Your task to perform on an android device: Open notification settings Image 0: 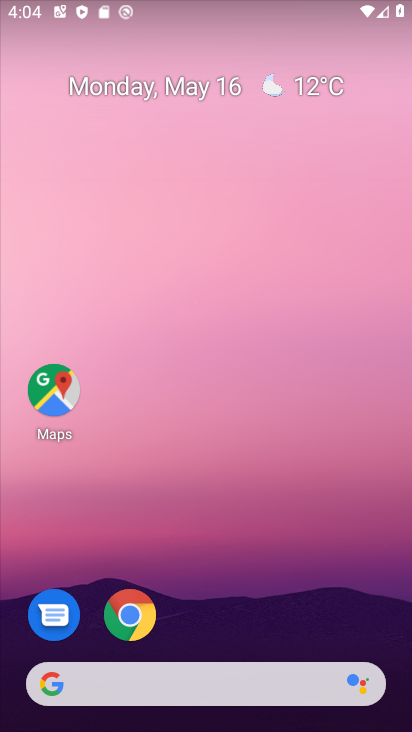
Step 0: drag from (212, 719) to (211, 213)
Your task to perform on an android device: Open notification settings Image 1: 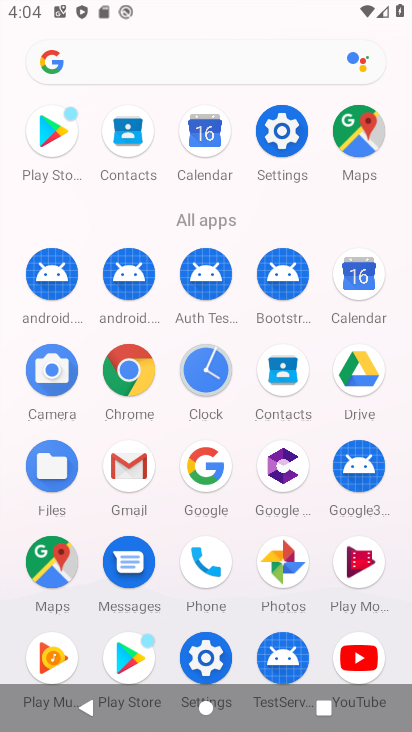
Step 1: click (276, 133)
Your task to perform on an android device: Open notification settings Image 2: 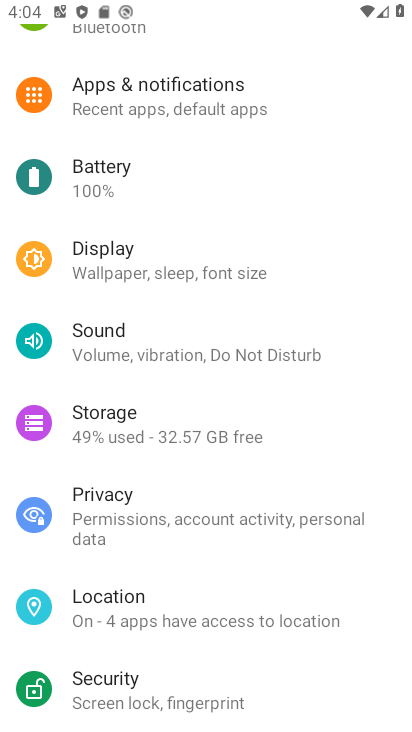
Step 2: click (127, 100)
Your task to perform on an android device: Open notification settings Image 3: 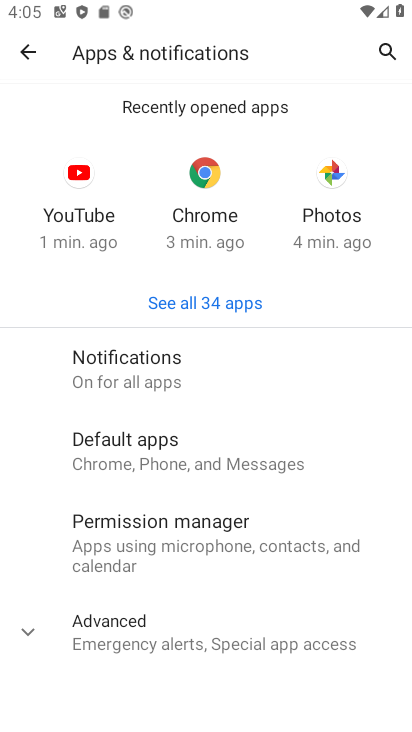
Step 3: click (117, 370)
Your task to perform on an android device: Open notification settings Image 4: 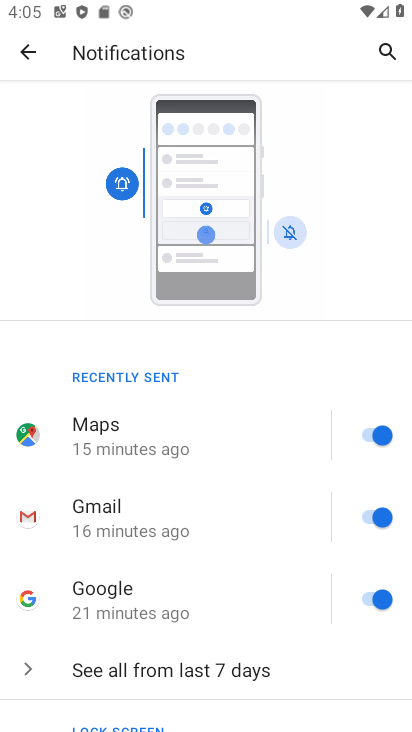
Step 4: task complete